Your task to perform on an android device: toggle notifications settings in the gmail app Image 0: 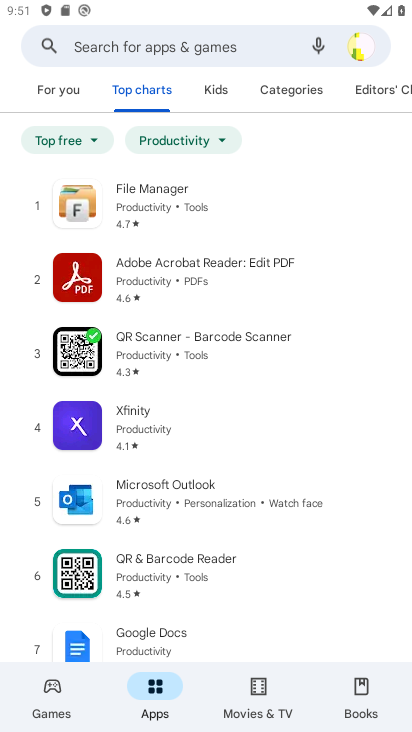
Step 0: task complete